Your task to perform on an android device: Show me popular videos on Youtube Image 0: 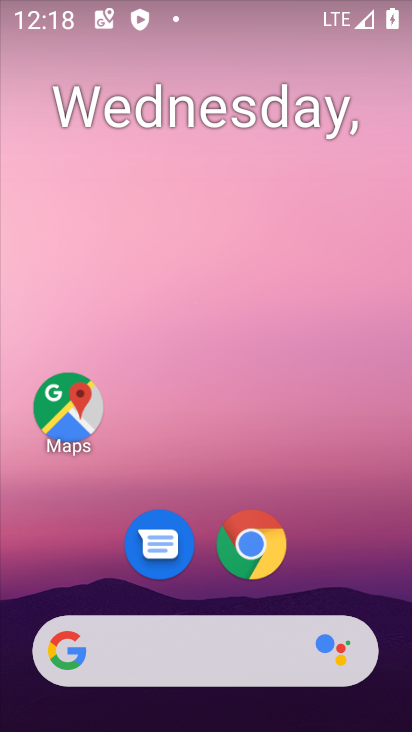
Step 0: drag from (391, 652) to (226, 108)
Your task to perform on an android device: Show me popular videos on Youtube Image 1: 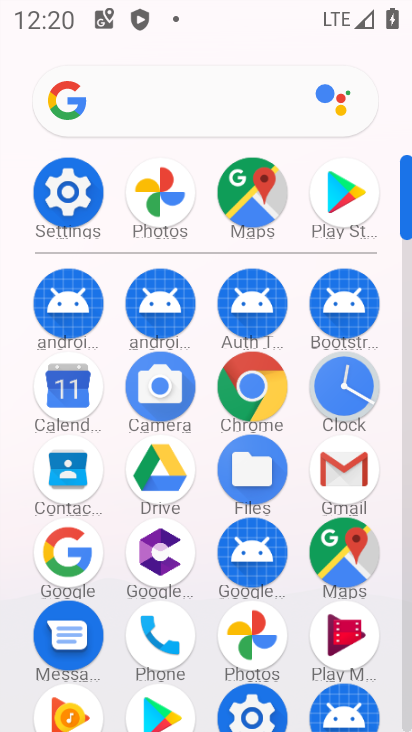
Step 1: drag from (306, 680) to (279, 129)
Your task to perform on an android device: Show me popular videos on Youtube Image 2: 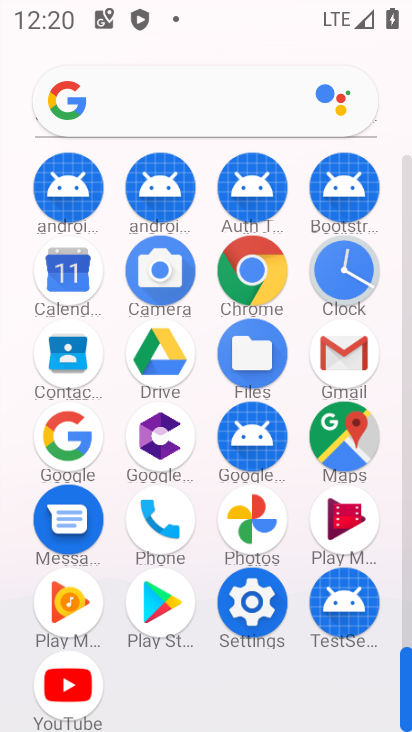
Step 2: click (68, 706)
Your task to perform on an android device: Show me popular videos on Youtube Image 3: 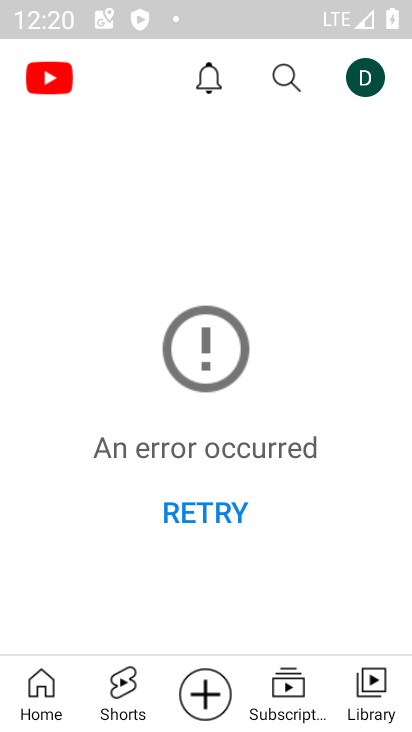
Step 3: task complete